Your task to perform on an android device: Do I have any events tomorrow? Image 0: 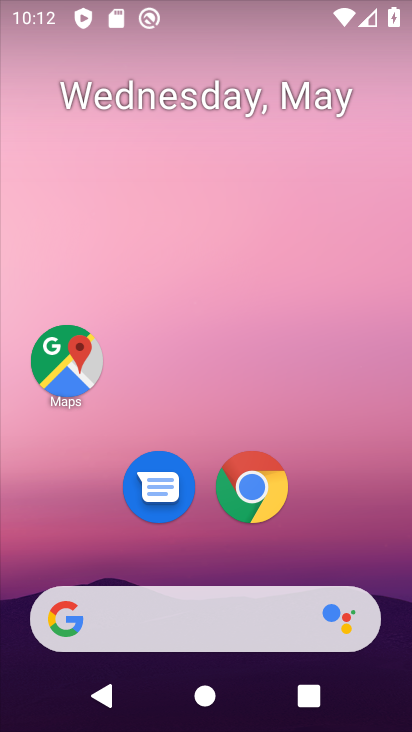
Step 0: drag from (331, 488) to (338, 65)
Your task to perform on an android device: Do I have any events tomorrow? Image 1: 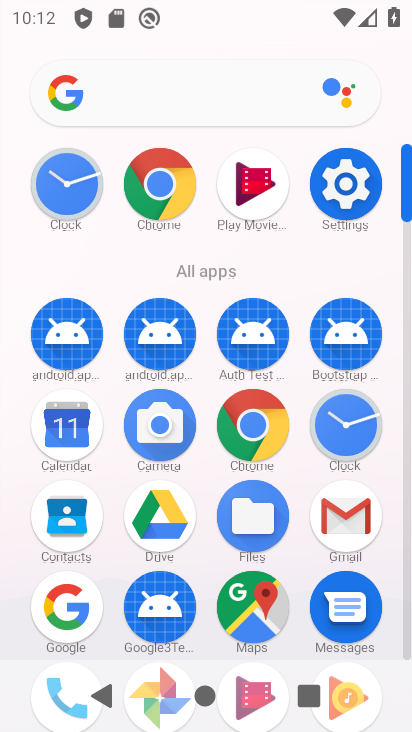
Step 1: drag from (17, 566) to (11, 179)
Your task to perform on an android device: Do I have any events tomorrow? Image 2: 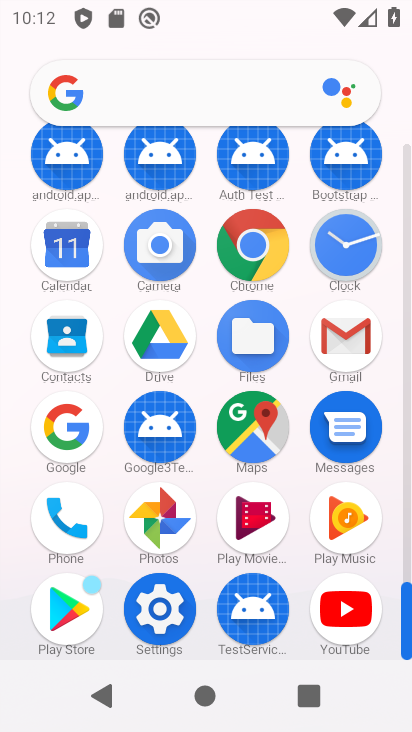
Step 2: drag from (21, 479) to (23, 253)
Your task to perform on an android device: Do I have any events tomorrow? Image 3: 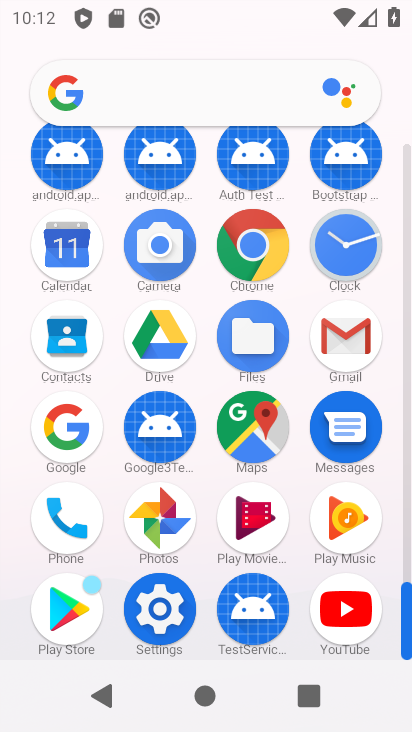
Step 3: click (62, 234)
Your task to perform on an android device: Do I have any events tomorrow? Image 4: 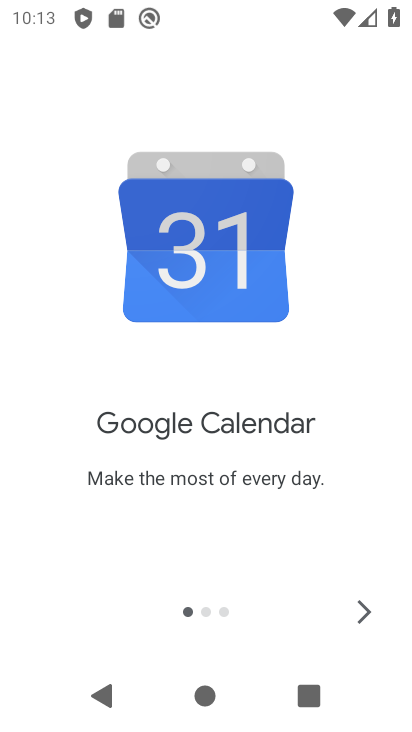
Step 4: click (362, 599)
Your task to perform on an android device: Do I have any events tomorrow? Image 5: 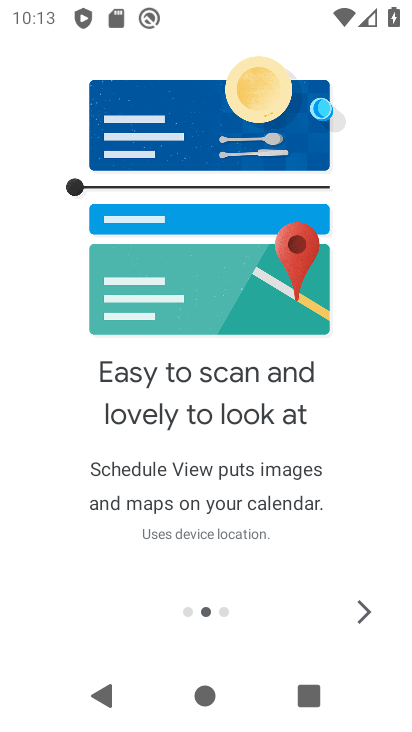
Step 5: click (362, 599)
Your task to perform on an android device: Do I have any events tomorrow? Image 6: 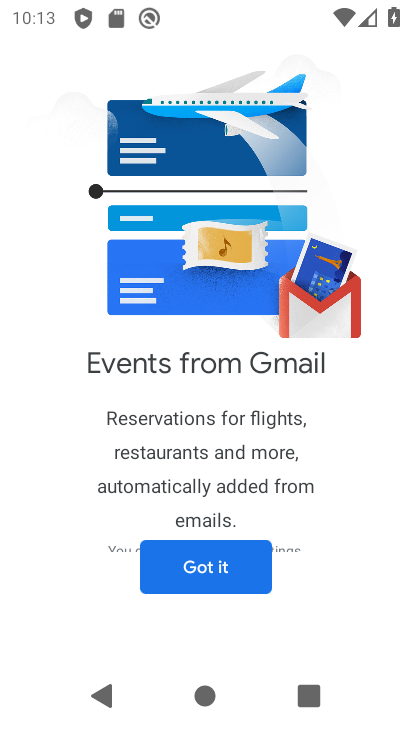
Step 6: click (207, 548)
Your task to perform on an android device: Do I have any events tomorrow? Image 7: 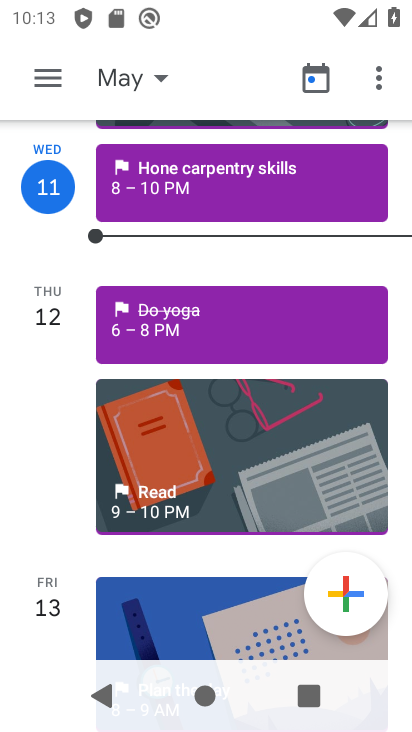
Step 7: click (52, 311)
Your task to perform on an android device: Do I have any events tomorrow? Image 8: 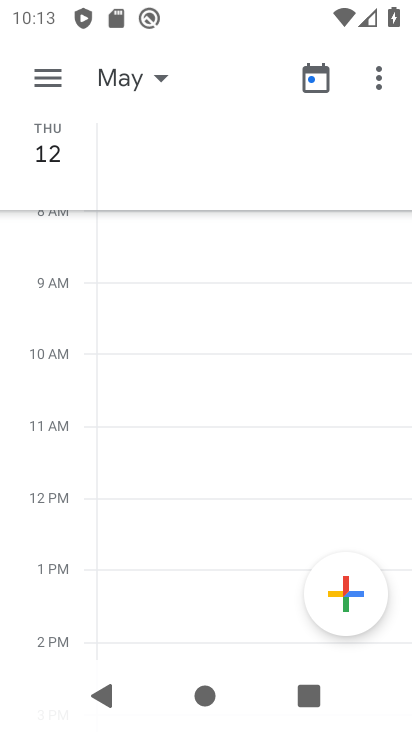
Step 8: task complete